Your task to perform on an android device: Do I have any events this weekend? Image 0: 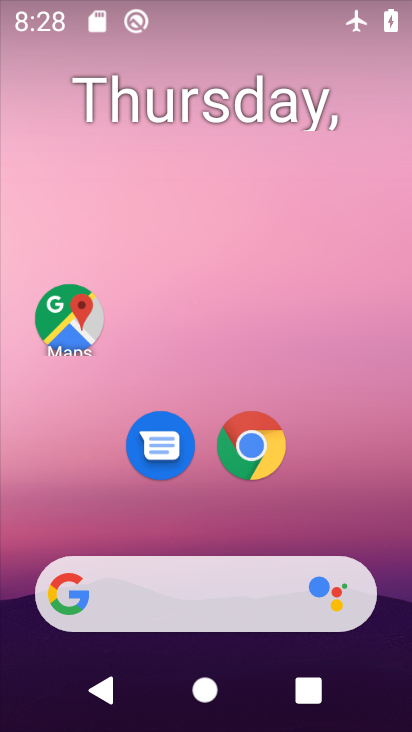
Step 0: drag from (355, 501) to (309, 44)
Your task to perform on an android device: Do I have any events this weekend? Image 1: 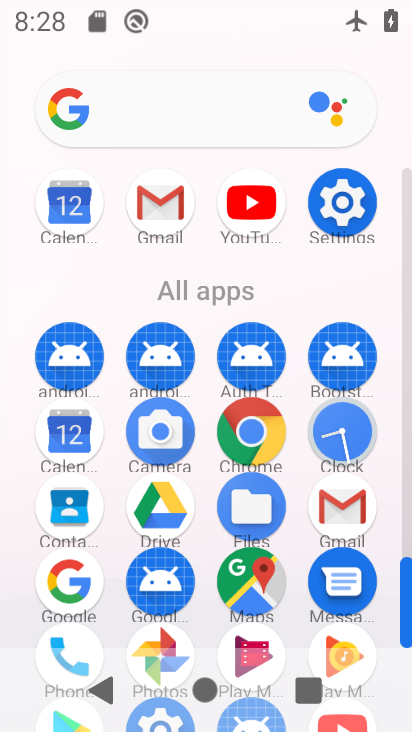
Step 1: drag from (208, 414) to (74, 322)
Your task to perform on an android device: Do I have any events this weekend? Image 2: 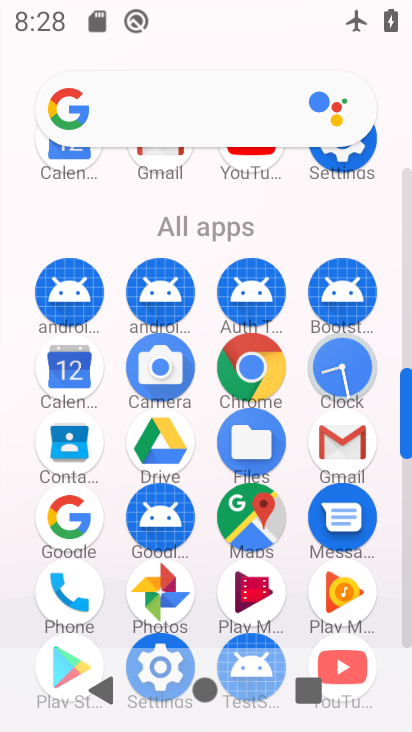
Step 2: click (73, 338)
Your task to perform on an android device: Do I have any events this weekend? Image 3: 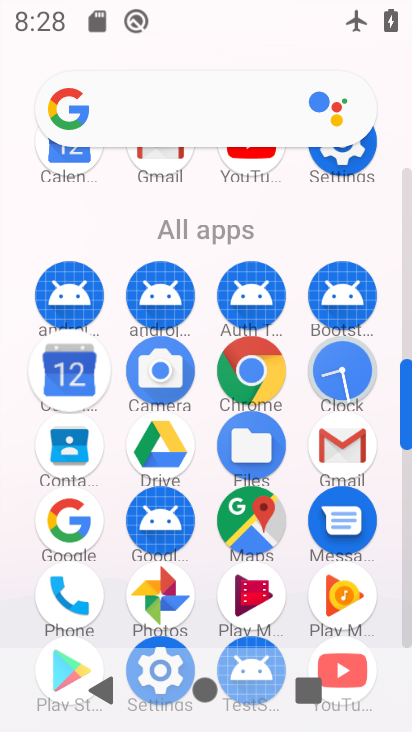
Step 3: click (72, 350)
Your task to perform on an android device: Do I have any events this weekend? Image 4: 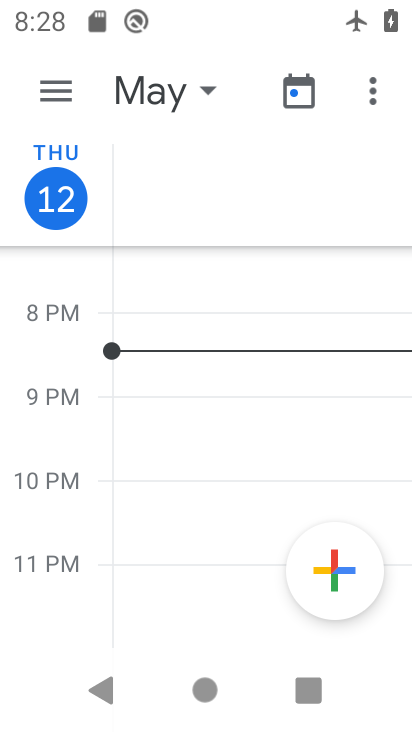
Step 4: click (63, 95)
Your task to perform on an android device: Do I have any events this weekend? Image 5: 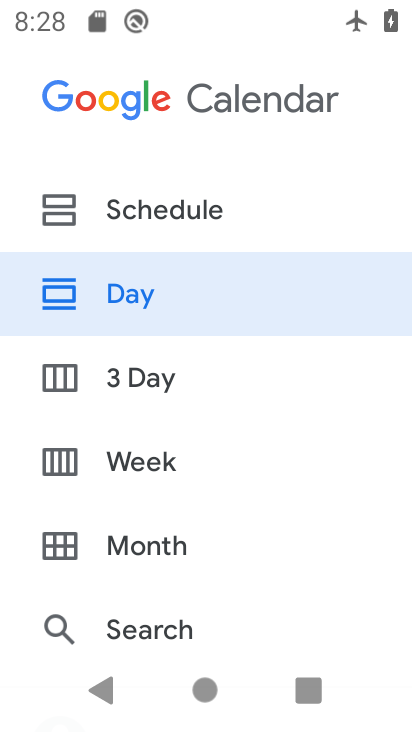
Step 5: click (140, 462)
Your task to perform on an android device: Do I have any events this weekend? Image 6: 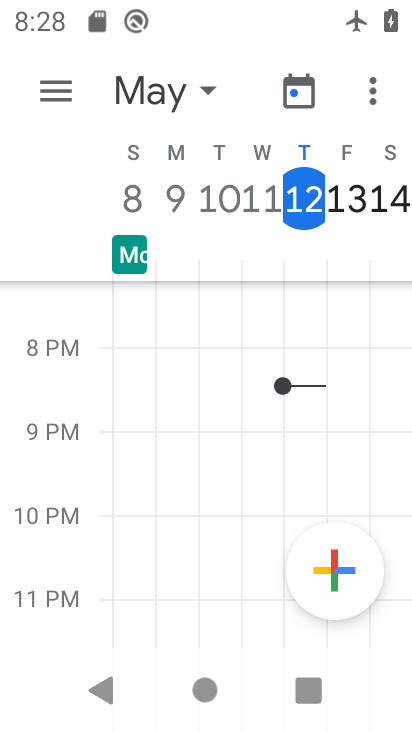
Step 6: click (397, 206)
Your task to perform on an android device: Do I have any events this weekend? Image 7: 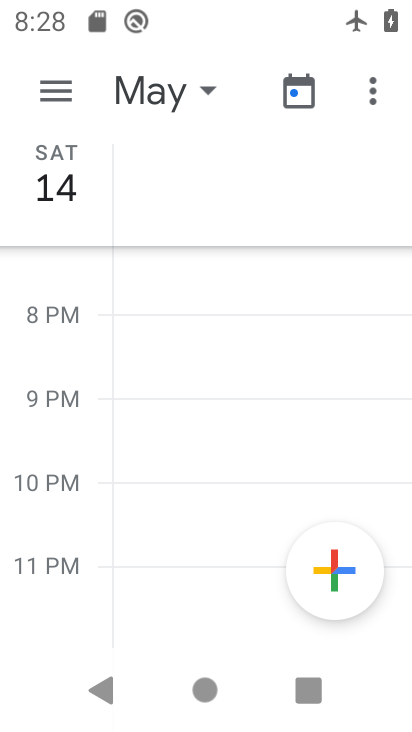
Step 7: drag from (221, 571) to (214, 264)
Your task to perform on an android device: Do I have any events this weekend? Image 8: 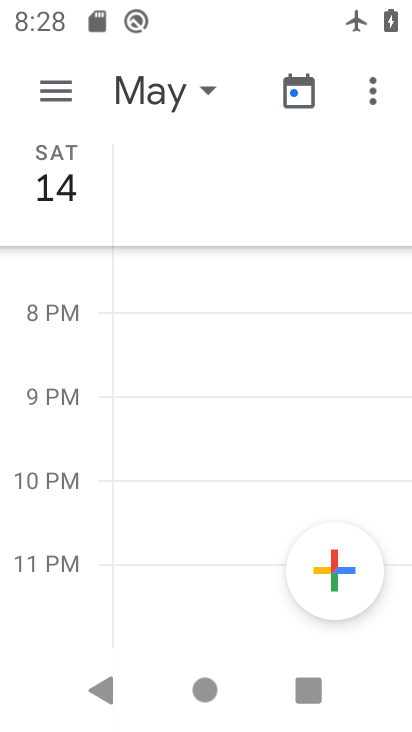
Step 8: click (60, 96)
Your task to perform on an android device: Do I have any events this weekend? Image 9: 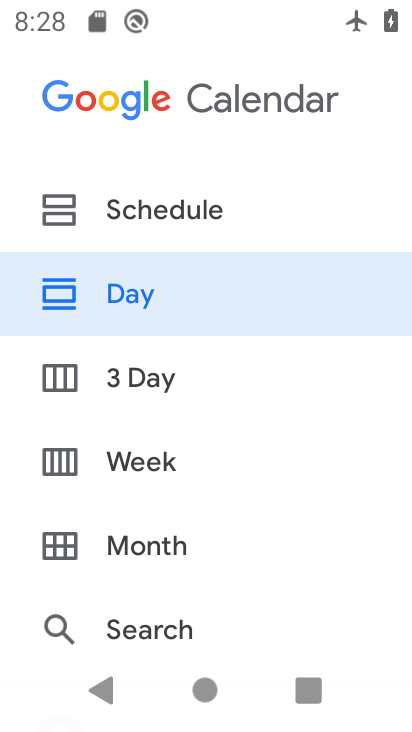
Step 9: click (88, 216)
Your task to perform on an android device: Do I have any events this weekend? Image 10: 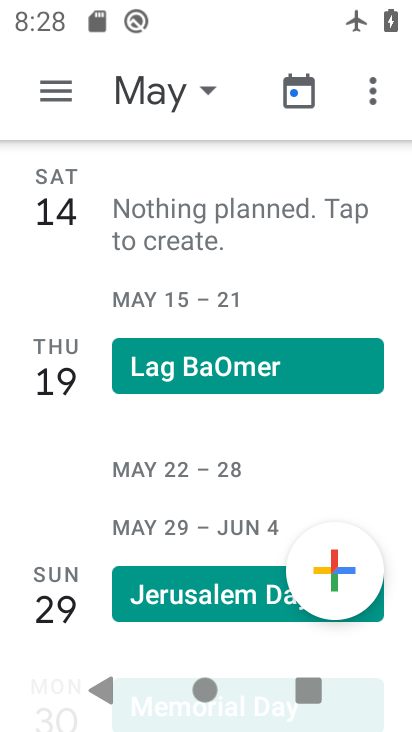
Step 10: click (55, 93)
Your task to perform on an android device: Do I have any events this weekend? Image 11: 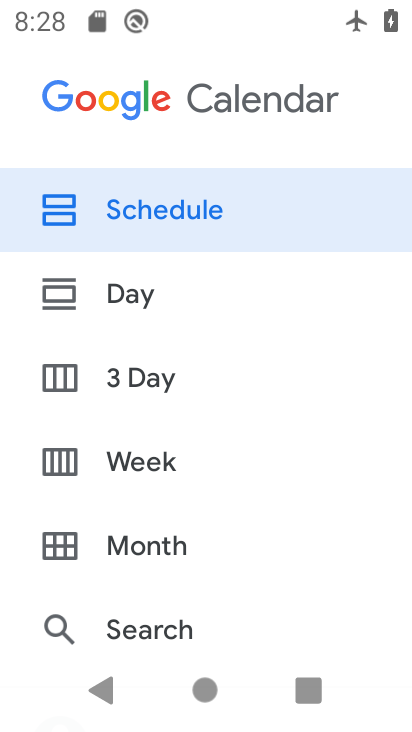
Step 11: task complete